Your task to perform on an android device: change text size in settings app Image 0: 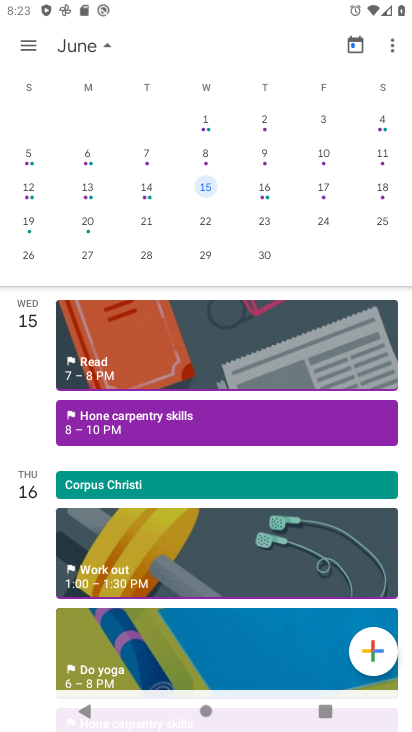
Step 0: press back button
Your task to perform on an android device: change text size in settings app Image 1: 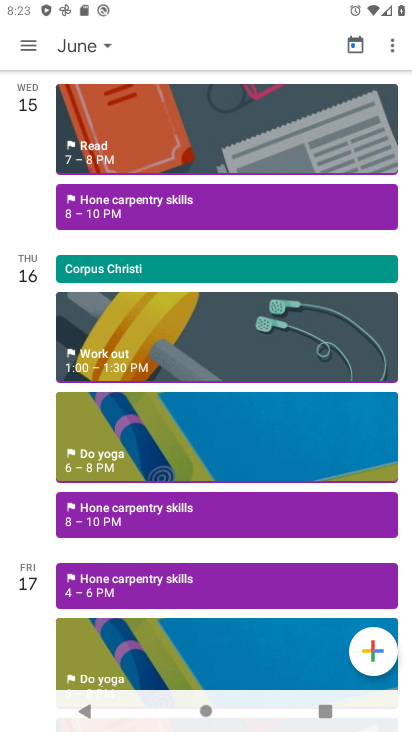
Step 1: press back button
Your task to perform on an android device: change text size in settings app Image 2: 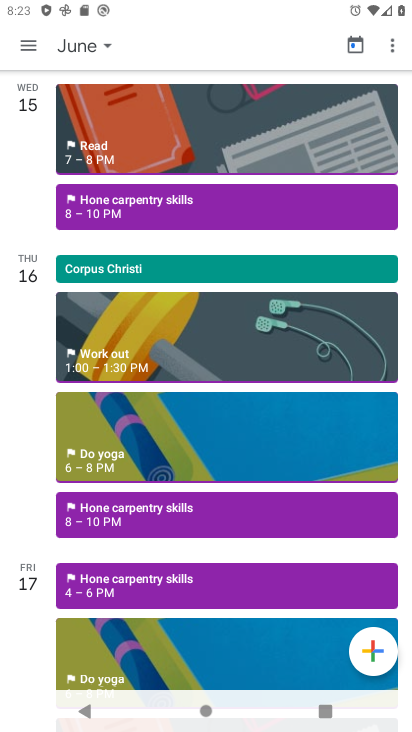
Step 2: press back button
Your task to perform on an android device: change text size in settings app Image 3: 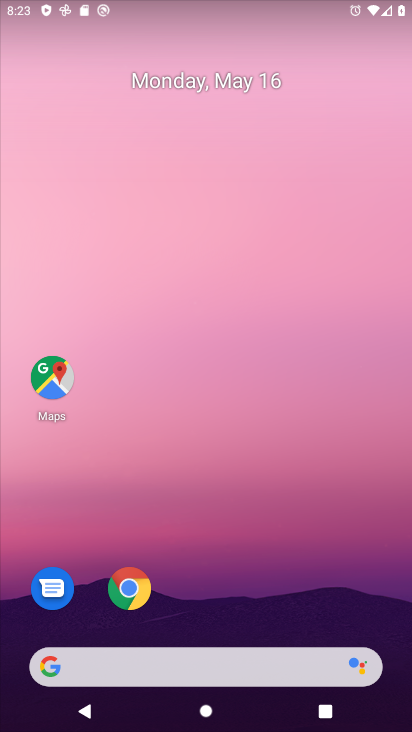
Step 3: drag from (319, 718) to (216, 37)
Your task to perform on an android device: change text size in settings app Image 4: 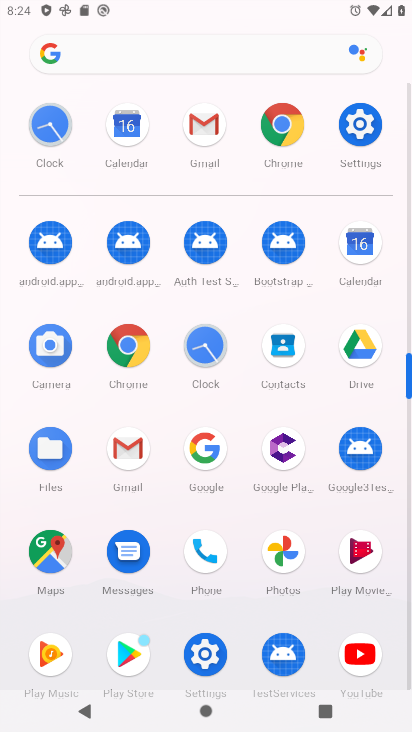
Step 4: click (347, 137)
Your task to perform on an android device: change text size in settings app Image 5: 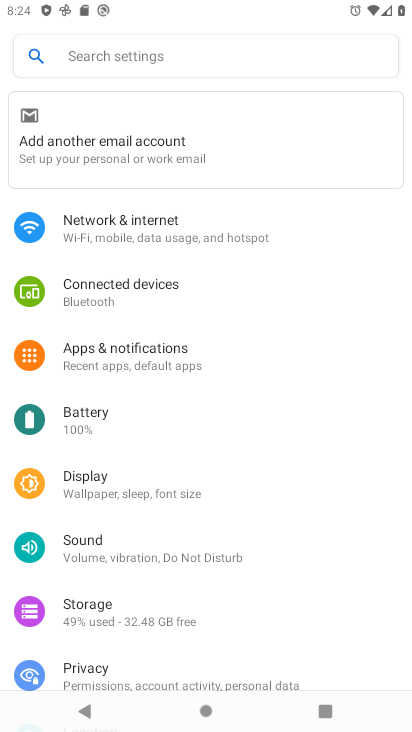
Step 5: drag from (142, 490) to (172, 198)
Your task to perform on an android device: change text size in settings app Image 6: 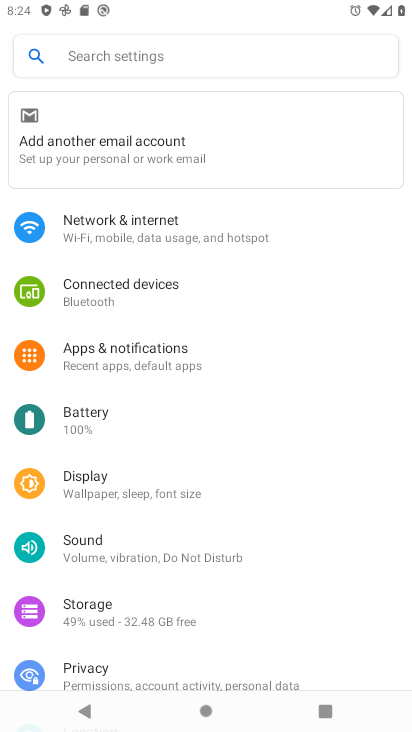
Step 6: drag from (195, 462) to (114, 111)
Your task to perform on an android device: change text size in settings app Image 7: 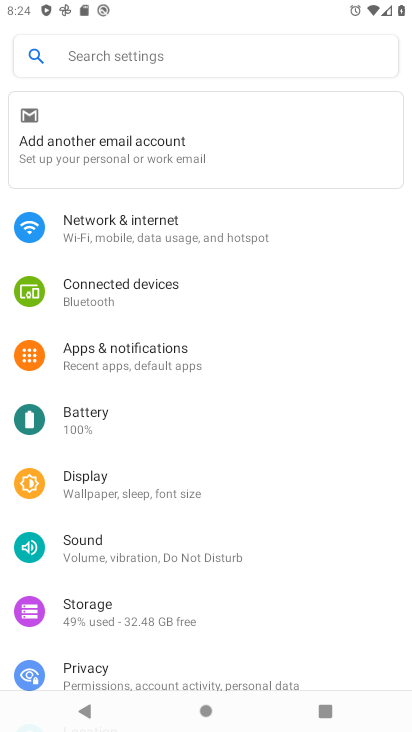
Step 7: drag from (205, 484) to (163, 186)
Your task to perform on an android device: change text size in settings app Image 8: 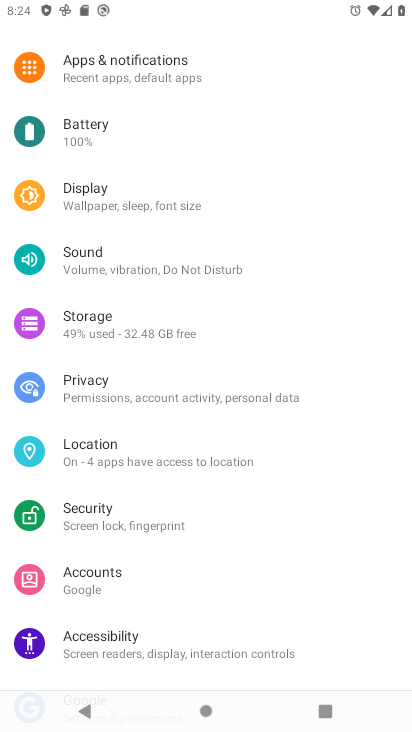
Step 8: drag from (178, 594) to (252, 173)
Your task to perform on an android device: change text size in settings app Image 9: 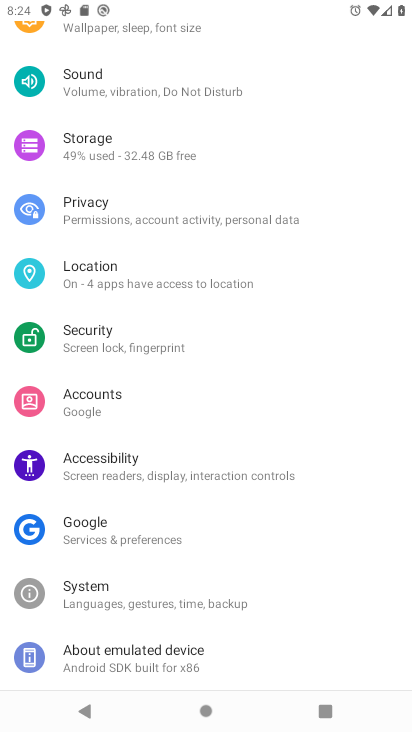
Step 9: drag from (117, 56) to (60, 577)
Your task to perform on an android device: change text size in settings app Image 10: 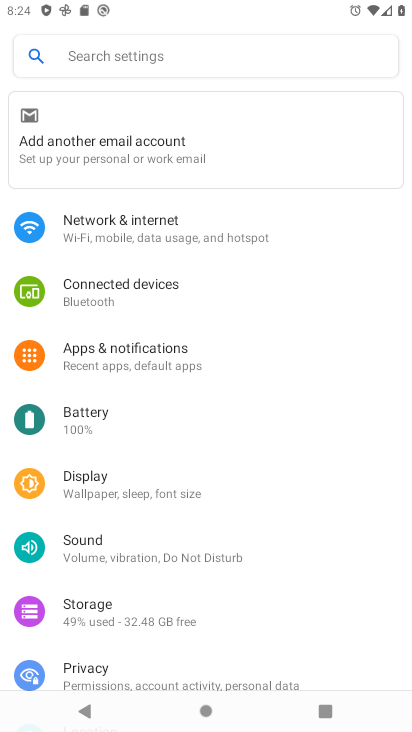
Step 10: click (123, 487)
Your task to perform on an android device: change text size in settings app Image 11: 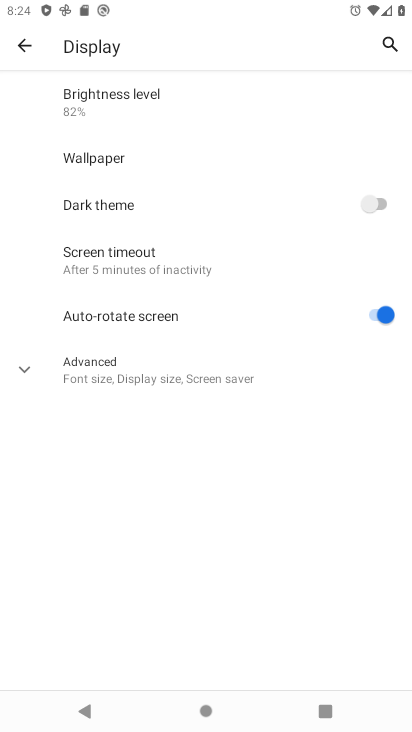
Step 11: click (118, 375)
Your task to perform on an android device: change text size in settings app Image 12: 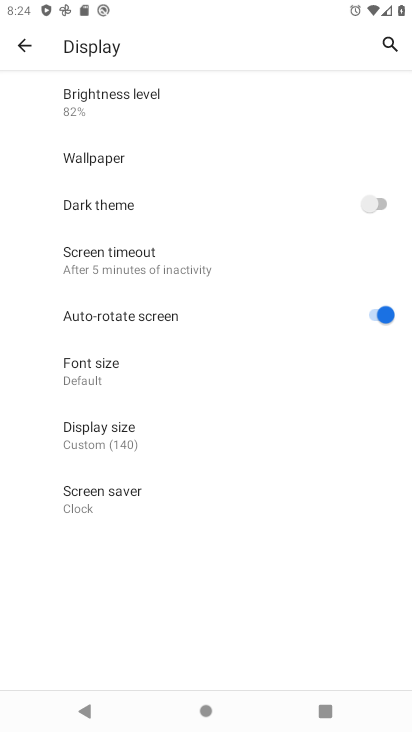
Step 12: click (92, 376)
Your task to perform on an android device: change text size in settings app Image 13: 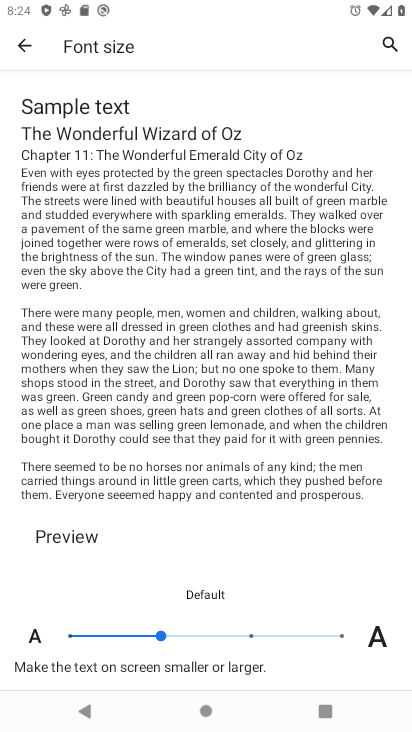
Step 13: click (260, 625)
Your task to perform on an android device: change text size in settings app Image 14: 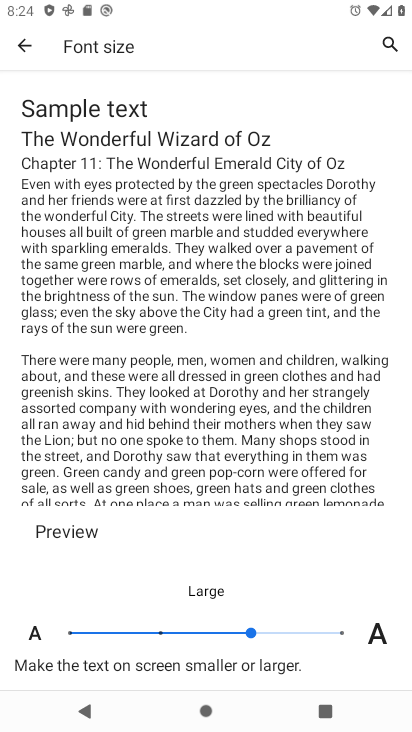
Step 14: task complete